Your task to perform on an android device: turn off location history Image 0: 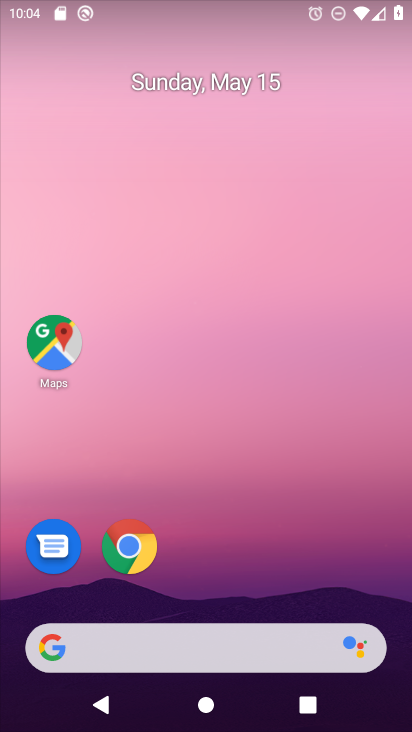
Step 0: drag from (285, 535) to (349, 89)
Your task to perform on an android device: turn off location history Image 1: 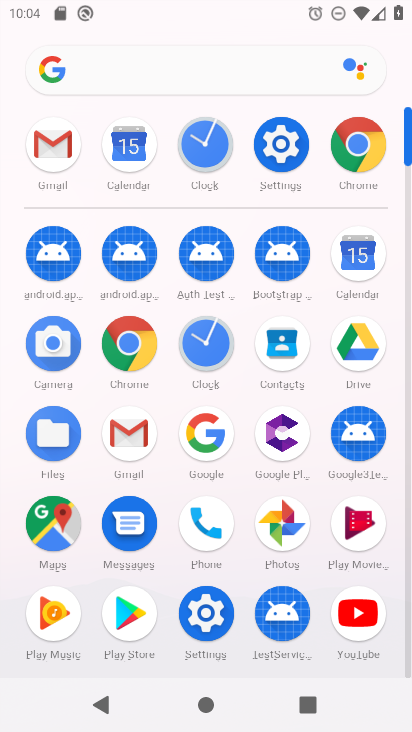
Step 1: click (283, 157)
Your task to perform on an android device: turn off location history Image 2: 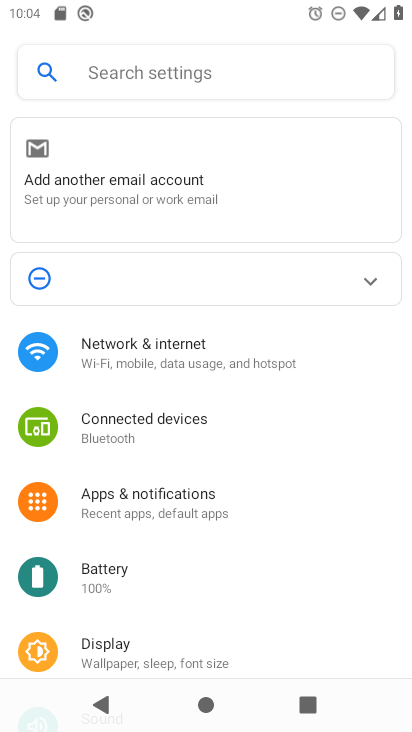
Step 2: drag from (260, 577) to (361, 111)
Your task to perform on an android device: turn off location history Image 3: 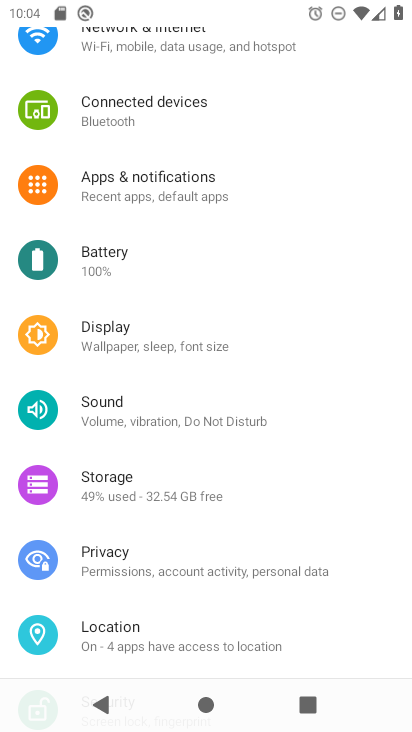
Step 3: drag from (222, 573) to (280, 128)
Your task to perform on an android device: turn off location history Image 4: 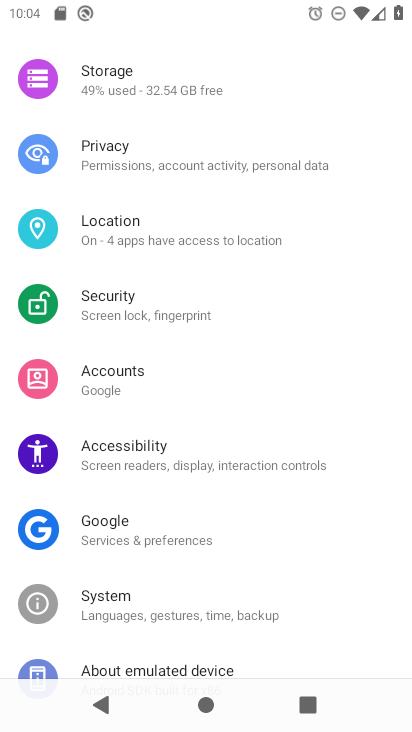
Step 4: drag from (254, 266) to (196, 504)
Your task to perform on an android device: turn off location history Image 5: 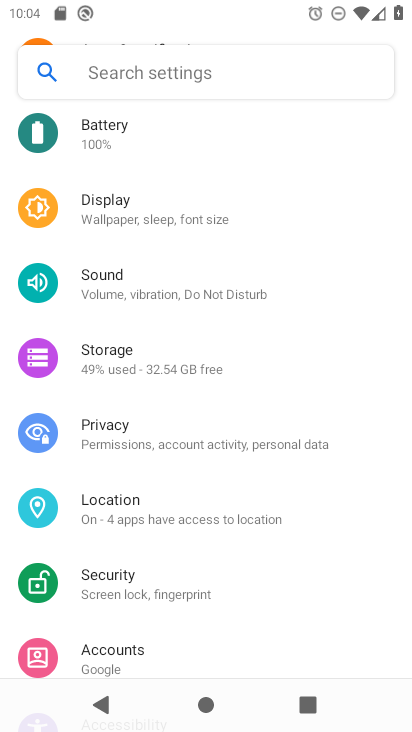
Step 5: click (169, 500)
Your task to perform on an android device: turn off location history Image 6: 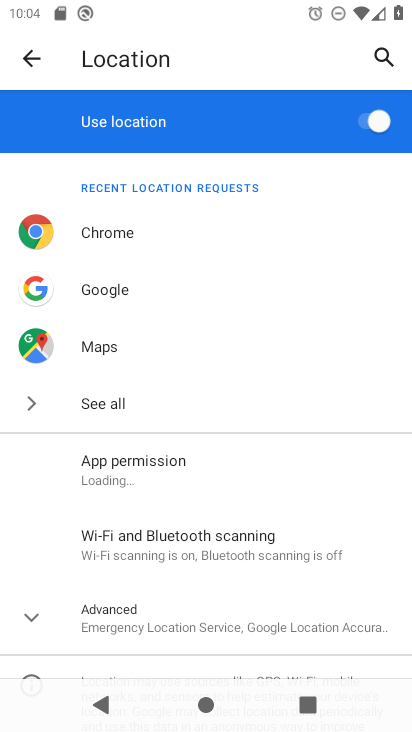
Step 6: drag from (299, 581) to (345, 295)
Your task to perform on an android device: turn off location history Image 7: 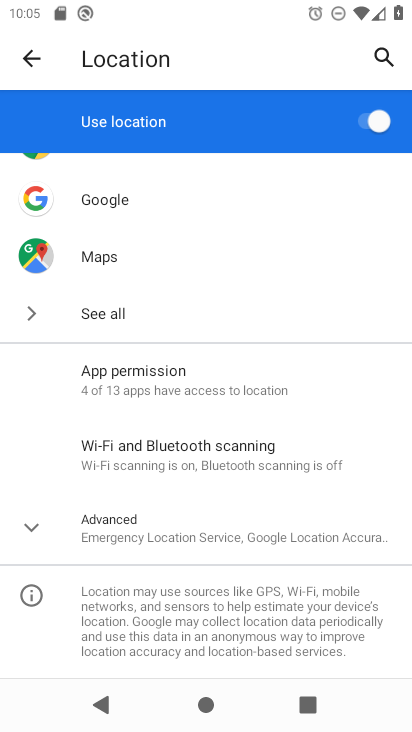
Step 7: click (131, 509)
Your task to perform on an android device: turn off location history Image 8: 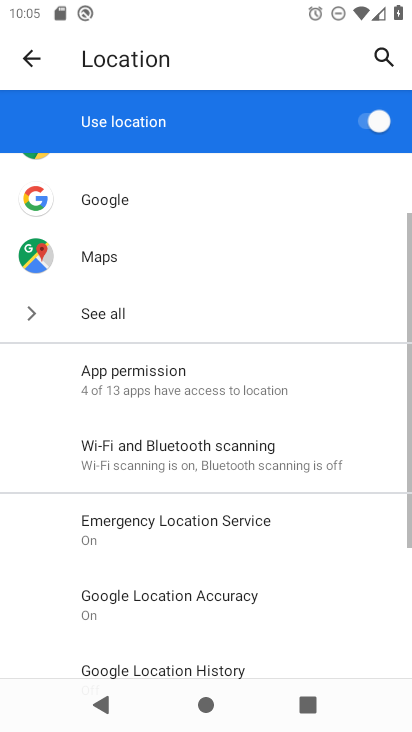
Step 8: drag from (307, 596) to (410, 118)
Your task to perform on an android device: turn off location history Image 9: 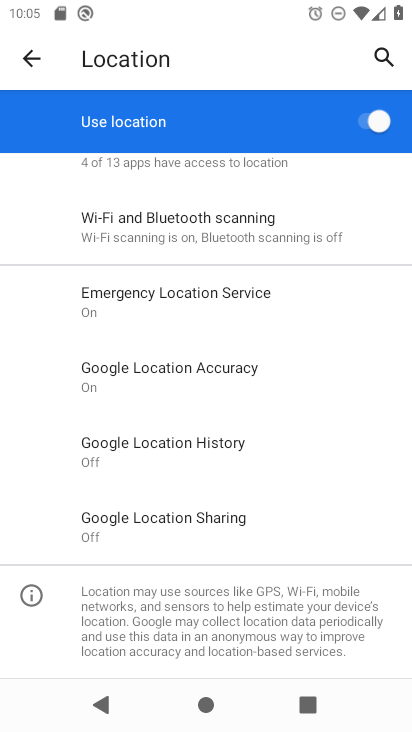
Step 9: click (189, 471)
Your task to perform on an android device: turn off location history Image 10: 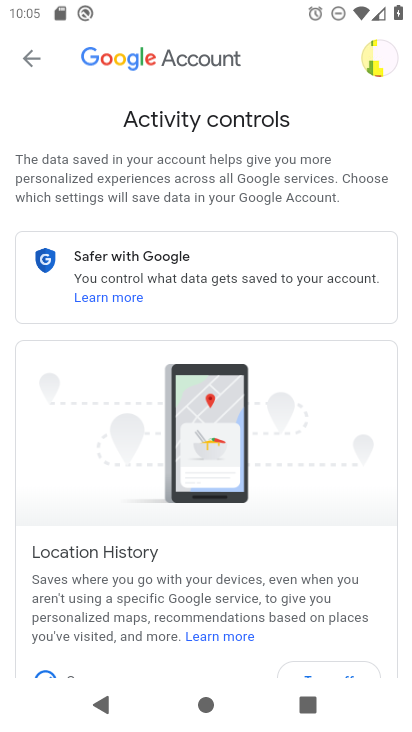
Step 10: drag from (217, 411) to (280, 79)
Your task to perform on an android device: turn off location history Image 11: 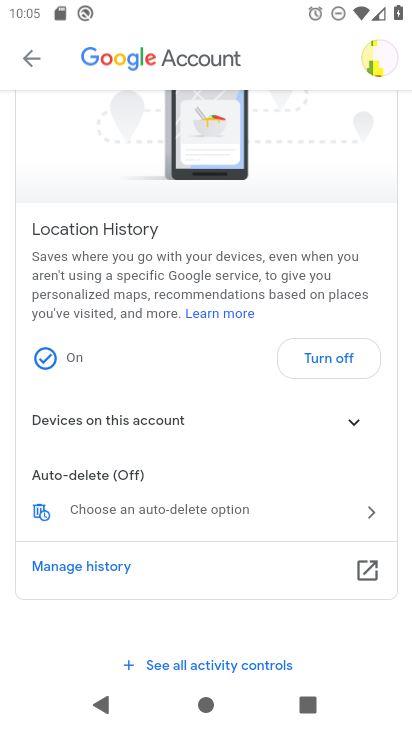
Step 11: click (316, 351)
Your task to perform on an android device: turn off location history Image 12: 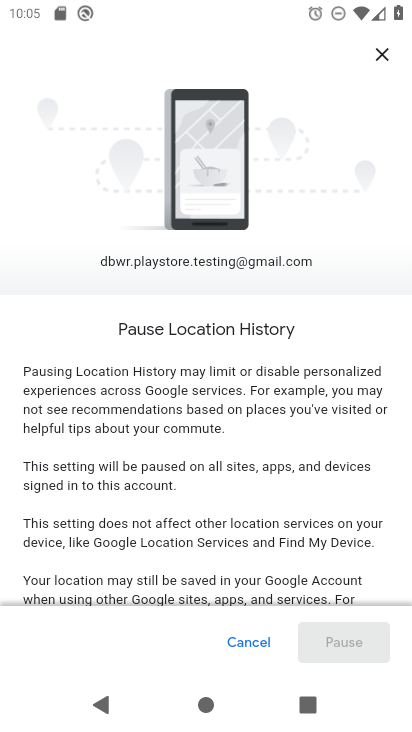
Step 12: drag from (291, 468) to (386, 41)
Your task to perform on an android device: turn off location history Image 13: 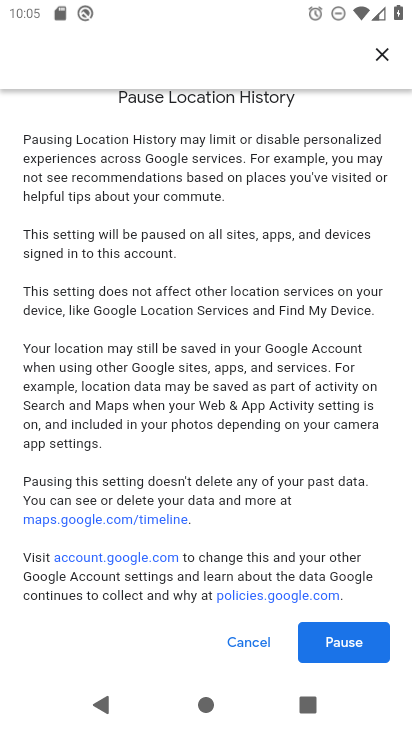
Step 13: click (333, 651)
Your task to perform on an android device: turn off location history Image 14: 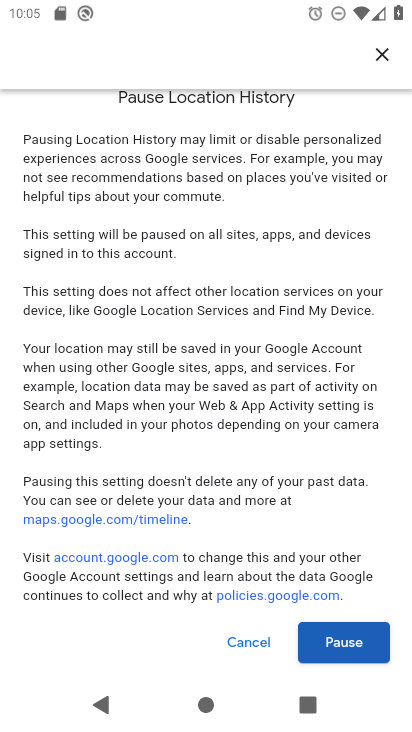
Step 14: click (332, 646)
Your task to perform on an android device: turn off location history Image 15: 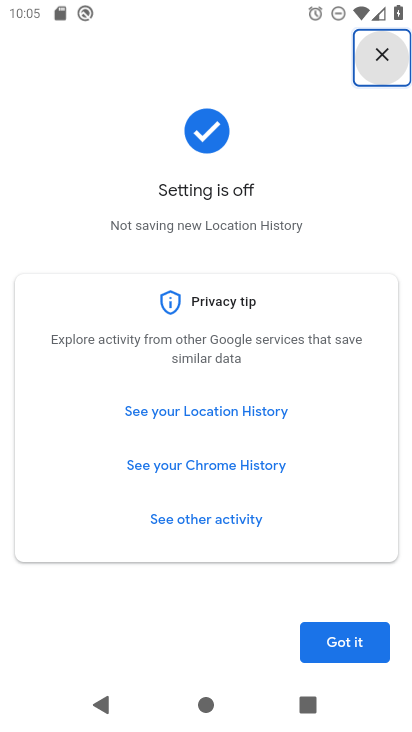
Step 15: task complete